Your task to perform on an android device: Open Reddit.com Image 0: 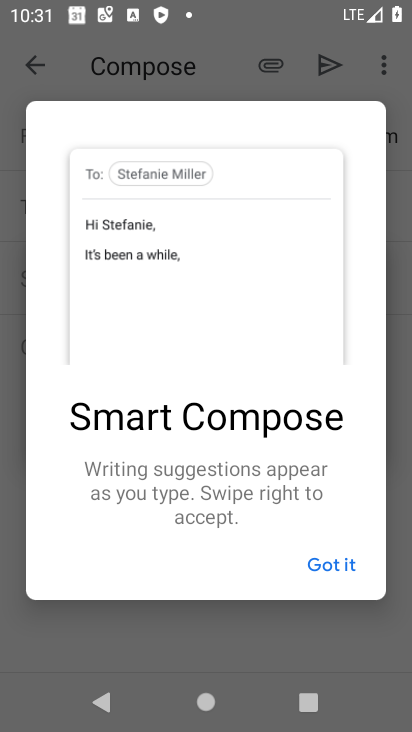
Step 0: press home button
Your task to perform on an android device: Open Reddit.com Image 1: 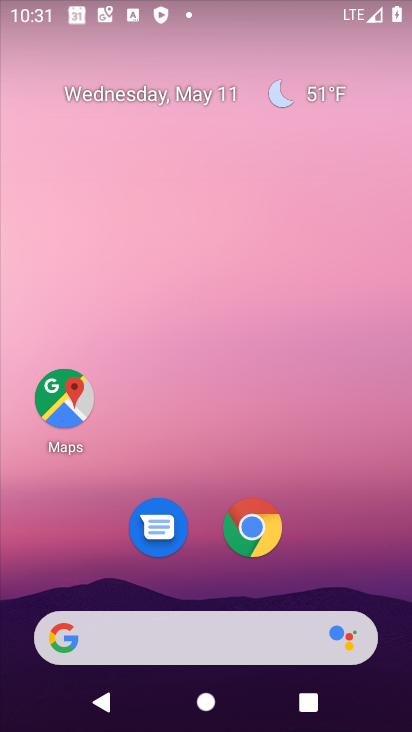
Step 1: drag from (366, 496) to (343, 114)
Your task to perform on an android device: Open Reddit.com Image 2: 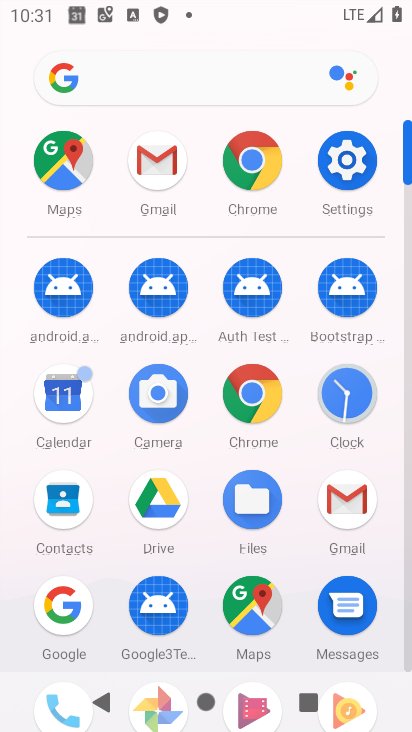
Step 2: click (257, 182)
Your task to perform on an android device: Open Reddit.com Image 3: 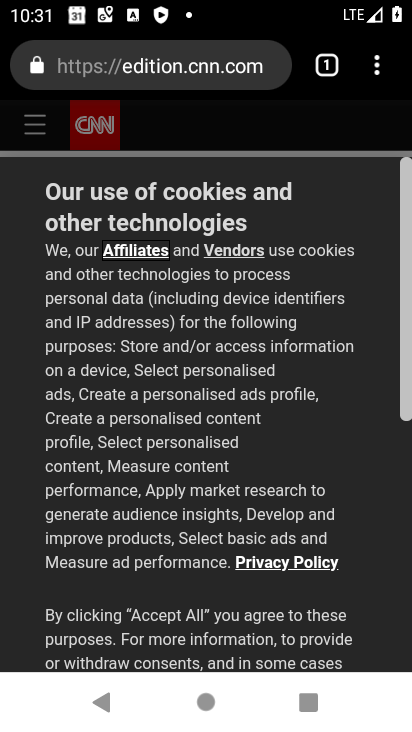
Step 3: click (210, 77)
Your task to perform on an android device: Open Reddit.com Image 4: 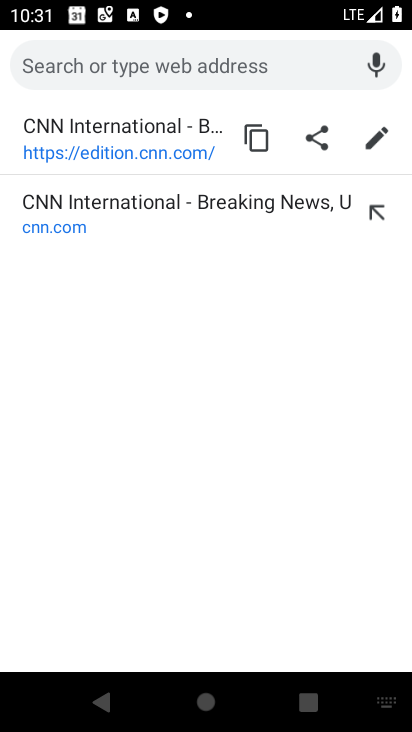
Step 4: type "reddit.com"
Your task to perform on an android device: Open Reddit.com Image 5: 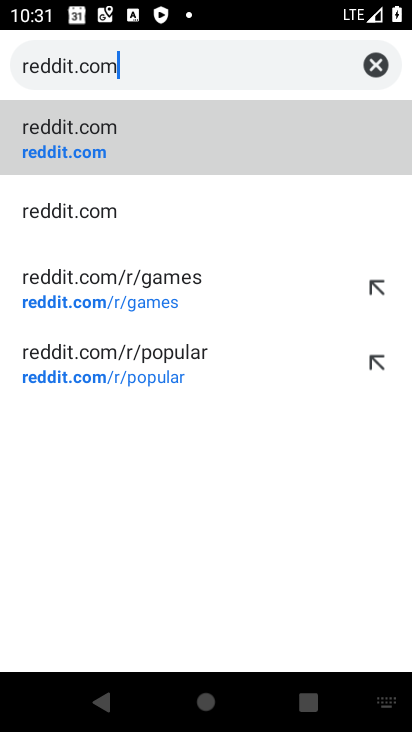
Step 5: click (62, 204)
Your task to perform on an android device: Open Reddit.com Image 6: 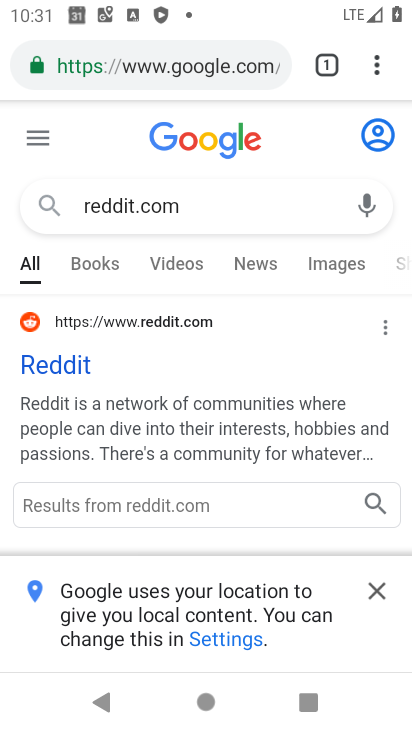
Step 6: click (64, 370)
Your task to perform on an android device: Open Reddit.com Image 7: 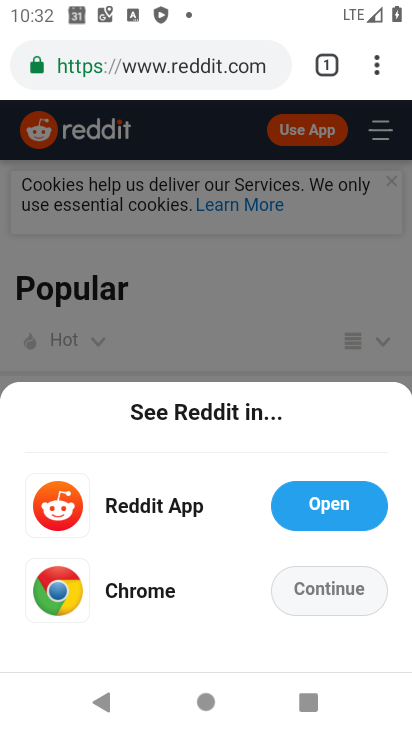
Step 7: task complete